Your task to perform on an android device: Open internet settings Image 0: 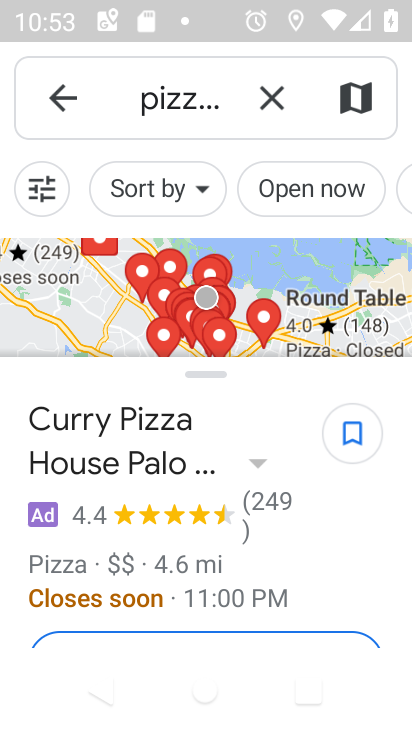
Step 0: press home button
Your task to perform on an android device: Open internet settings Image 1: 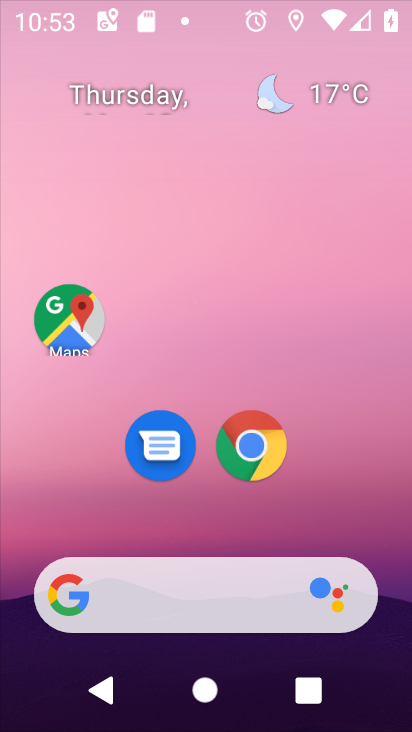
Step 1: drag from (233, 495) to (242, 181)
Your task to perform on an android device: Open internet settings Image 2: 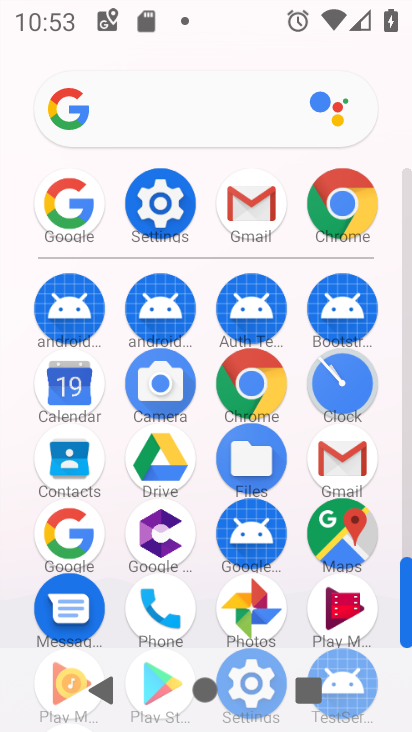
Step 2: click (183, 195)
Your task to perform on an android device: Open internet settings Image 3: 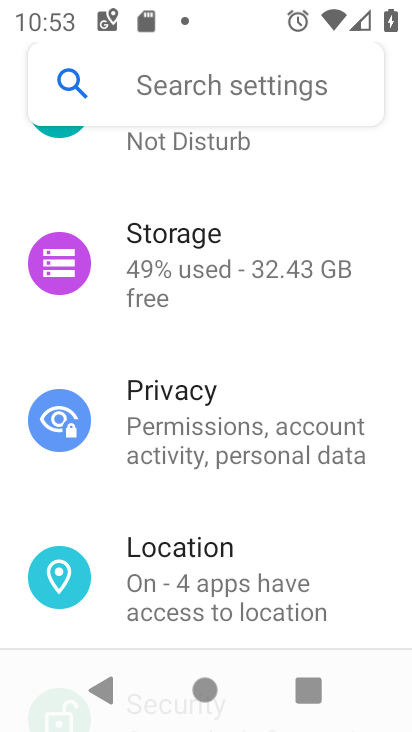
Step 3: drag from (165, 199) to (235, 562)
Your task to perform on an android device: Open internet settings Image 4: 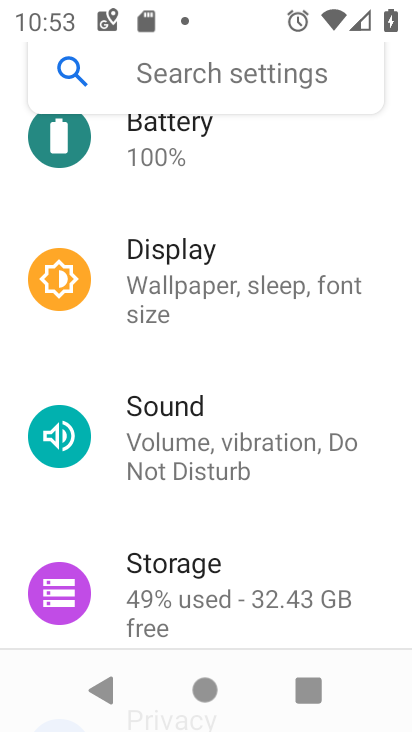
Step 4: drag from (194, 182) to (317, 710)
Your task to perform on an android device: Open internet settings Image 5: 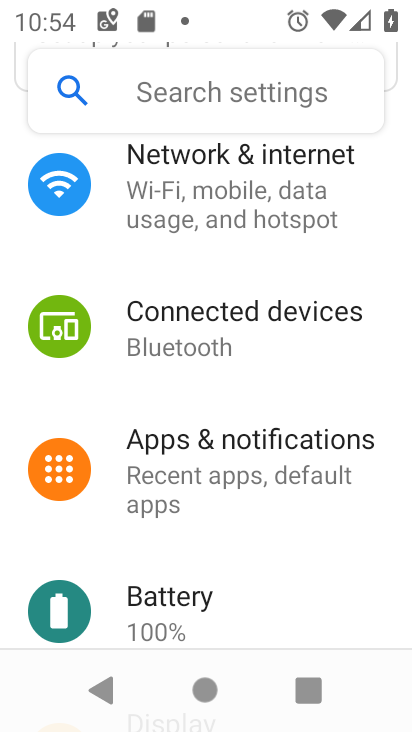
Step 5: click (226, 230)
Your task to perform on an android device: Open internet settings Image 6: 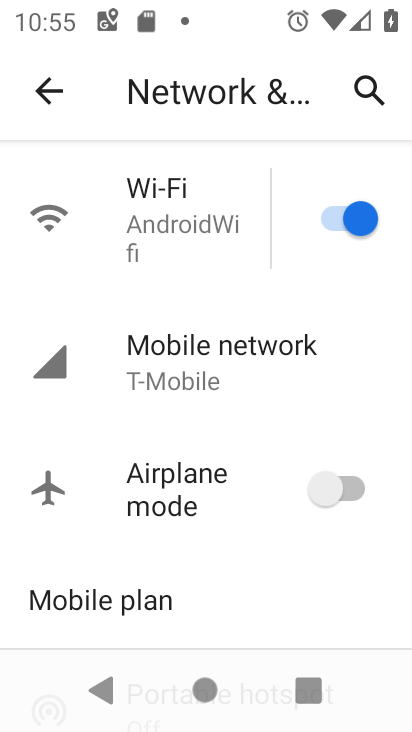
Step 6: click (242, 399)
Your task to perform on an android device: Open internet settings Image 7: 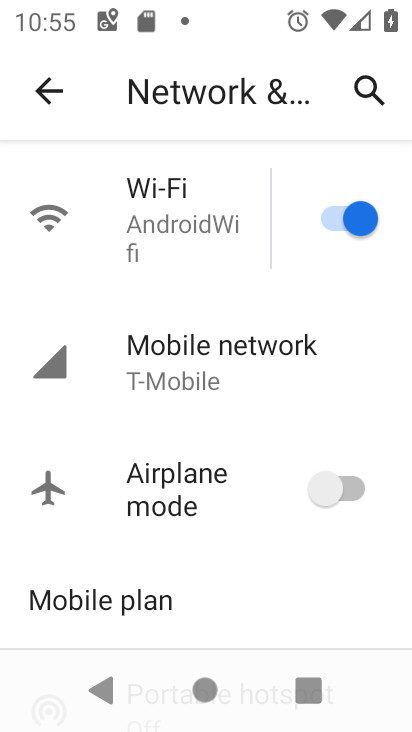
Step 7: task complete